Your task to perform on an android device: toggle location history Image 0: 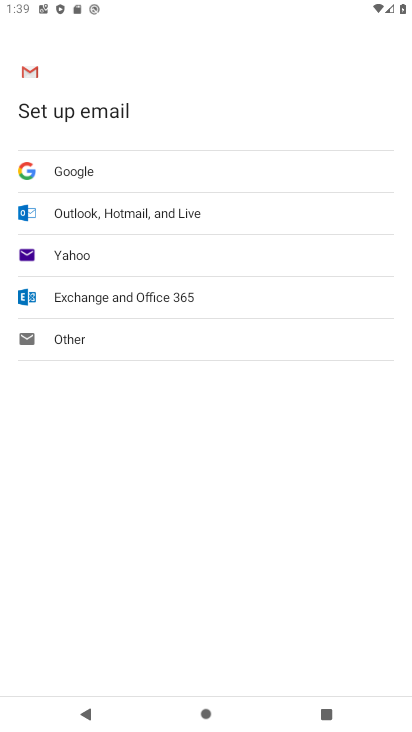
Step 0: press back button
Your task to perform on an android device: toggle location history Image 1: 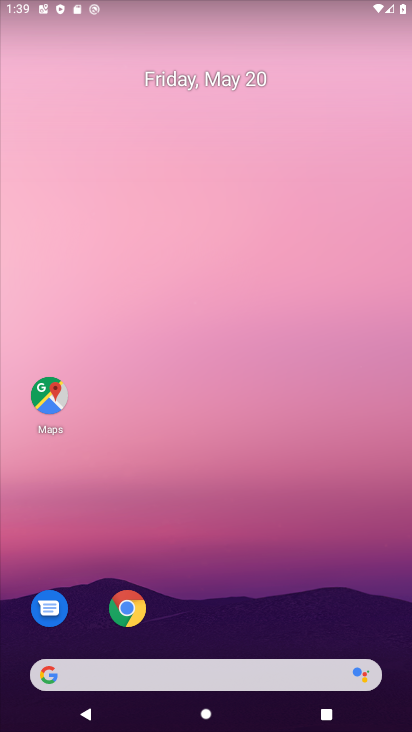
Step 1: drag from (233, 647) to (256, 129)
Your task to perform on an android device: toggle location history Image 2: 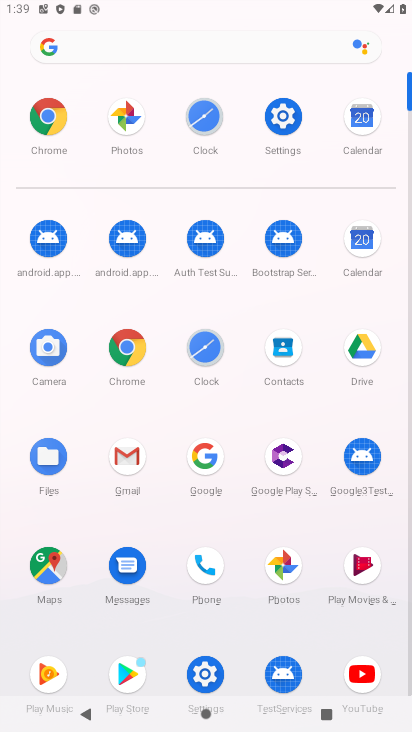
Step 2: click (283, 123)
Your task to perform on an android device: toggle location history Image 3: 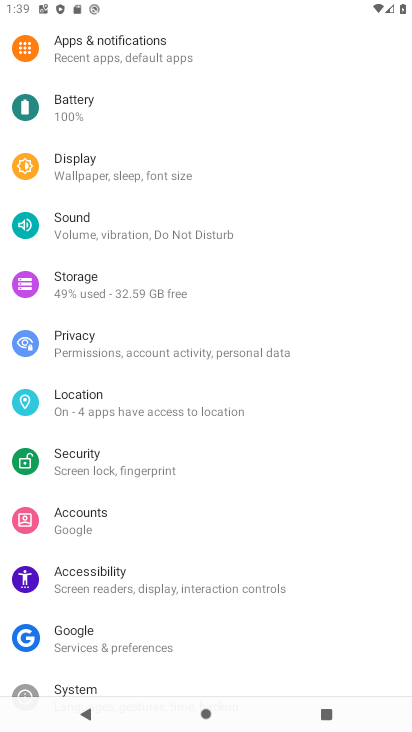
Step 3: click (122, 403)
Your task to perform on an android device: toggle location history Image 4: 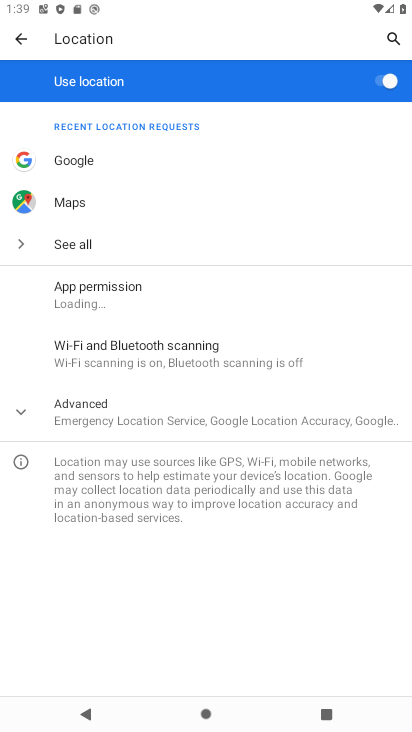
Step 4: click (112, 414)
Your task to perform on an android device: toggle location history Image 5: 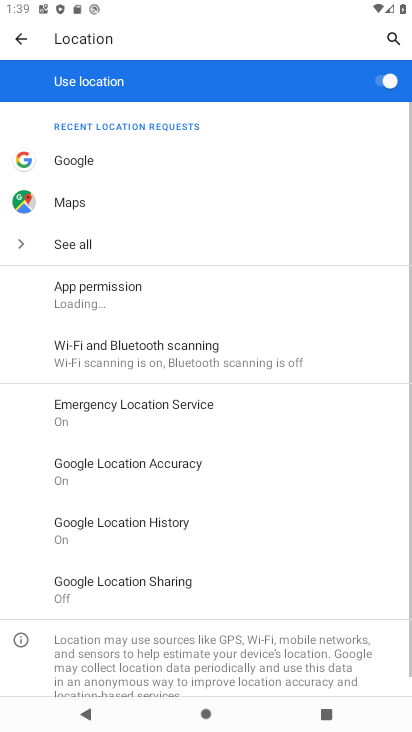
Step 5: click (158, 527)
Your task to perform on an android device: toggle location history Image 6: 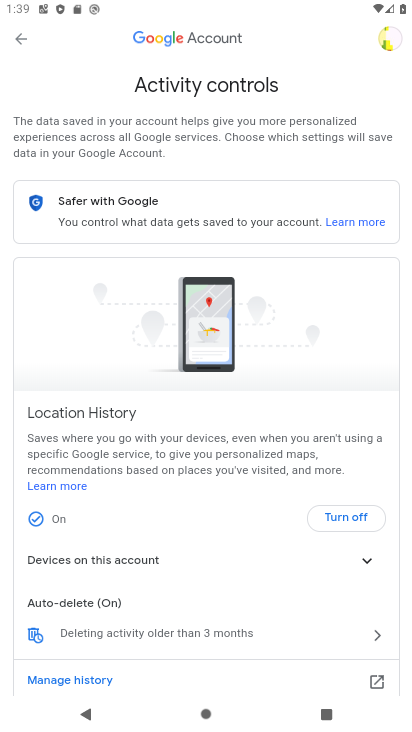
Step 6: click (328, 517)
Your task to perform on an android device: toggle location history Image 7: 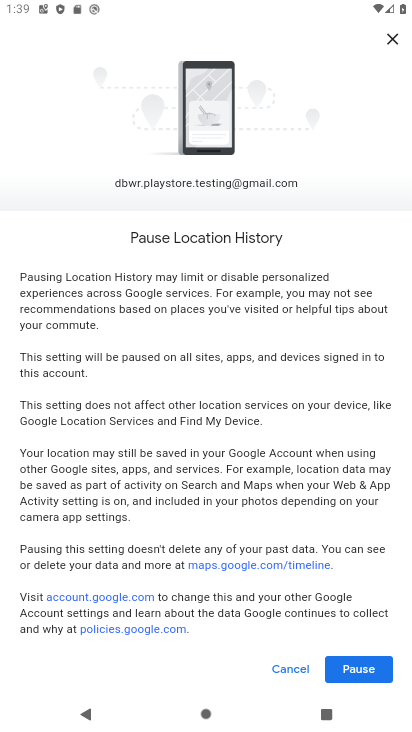
Step 7: drag from (275, 573) to (352, 98)
Your task to perform on an android device: toggle location history Image 8: 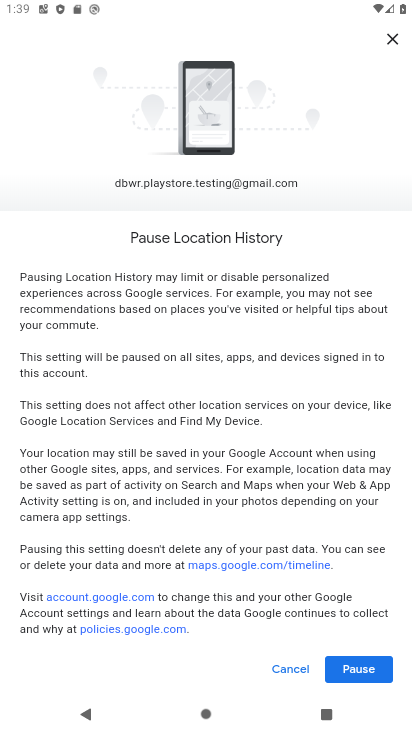
Step 8: click (345, 669)
Your task to perform on an android device: toggle location history Image 9: 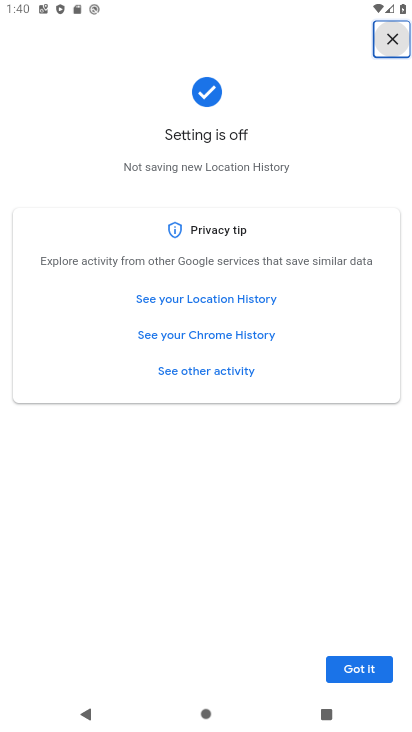
Step 9: click (354, 660)
Your task to perform on an android device: toggle location history Image 10: 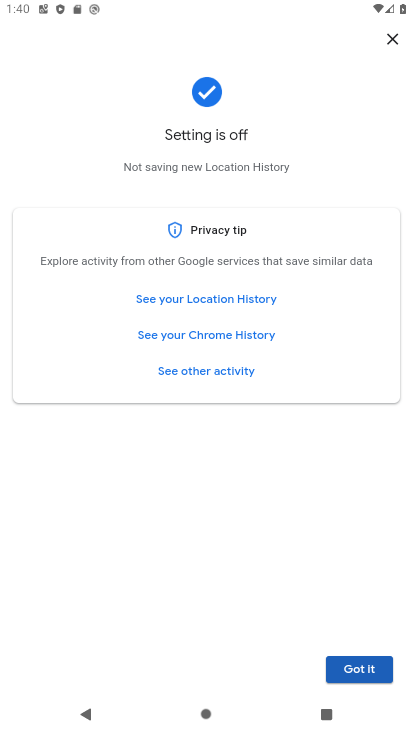
Step 10: click (357, 661)
Your task to perform on an android device: toggle location history Image 11: 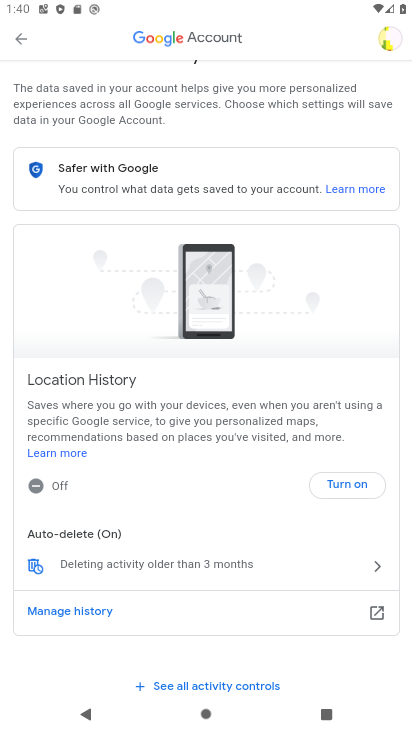
Step 11: task complete